Your task to perform on an android device: snooze an email in the gmail app Image 0: 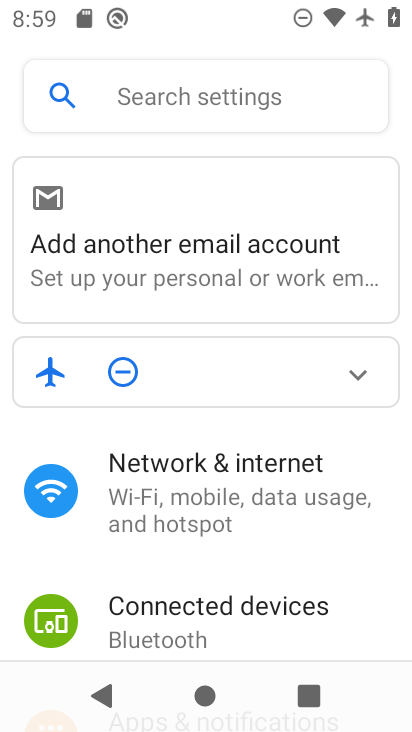
Step 0: press home button
Your task to perform on an android device: snooze an email in the gmail app Image 1: 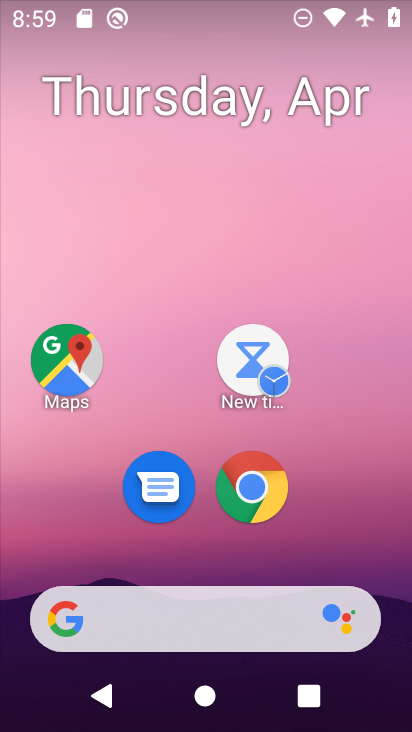
Step 1: drag from (350, 476) to (249, 91)
Your task to perform on an android device: snooze an email in the gmail app Image 2: 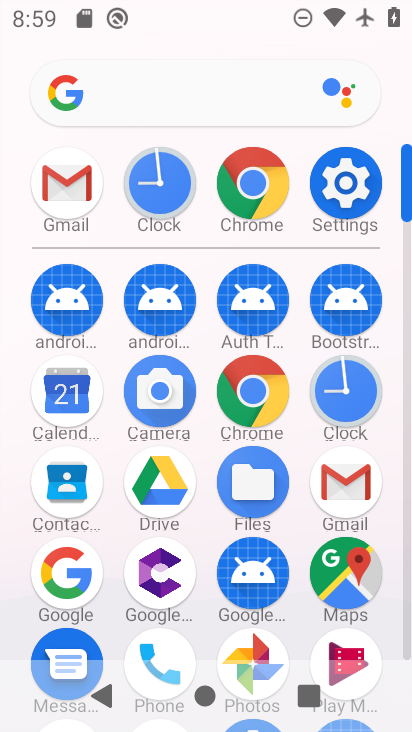
Step 2: click (71, 187)
Your task to perform on an android device: snooze an email in the gmail app Image 3: 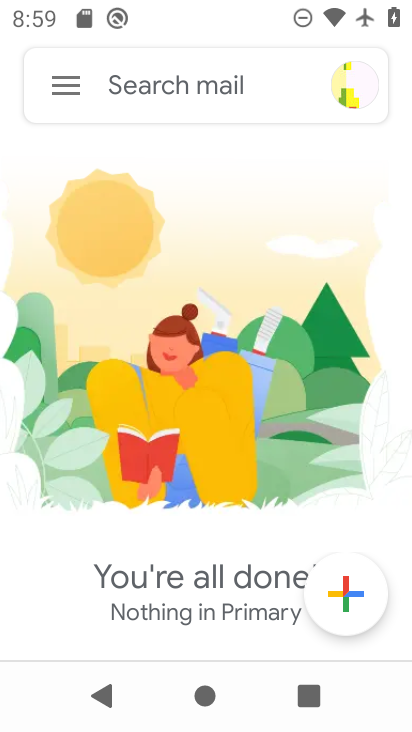
Step 3: task complete